Your task to perform on an android device: Do I have any events today? Image 0: 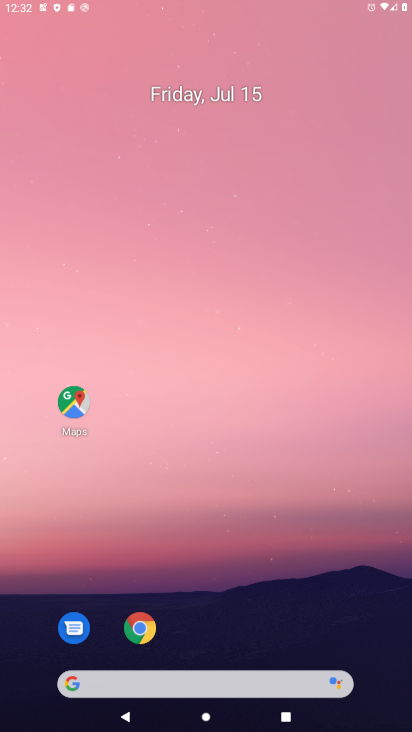
Step 0: press home button
Your task to perform on an android device: Do I have any events today? Image 1: 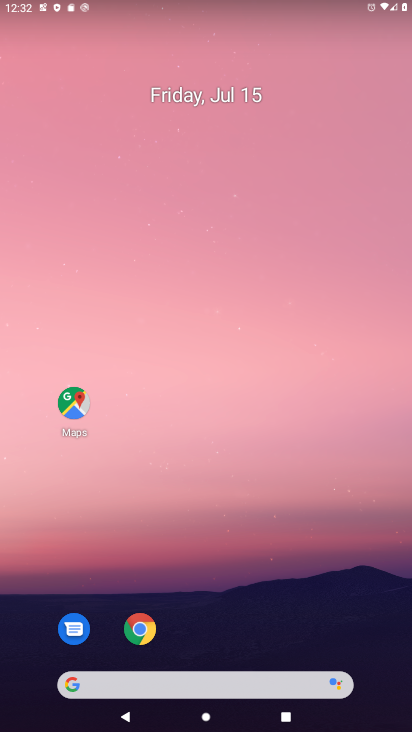
Step 1: drag from (266, 637) to (326, 1)
Your task to perform on an android device: Do I have any events today? Image 2: 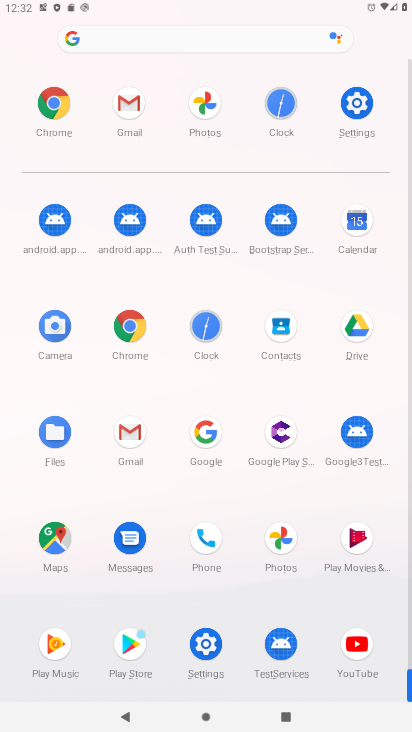
Step 2: click (363, 216)
Your task to perform on an android device: Do I have any events today? Image 3: 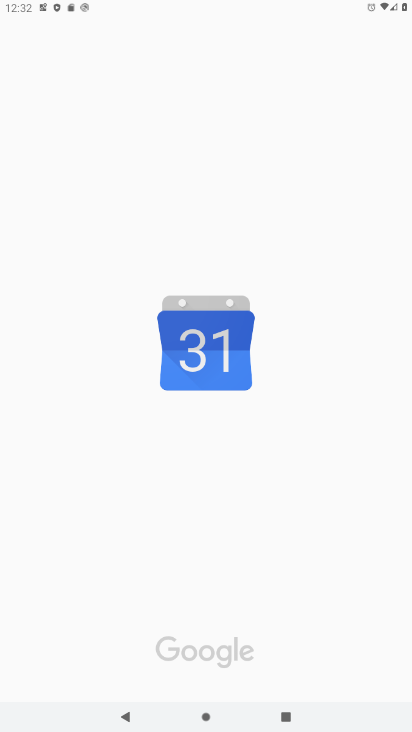
Step 3: click (363, 216)
Your task to perform on an android device: Do I have any events today? Image 4: 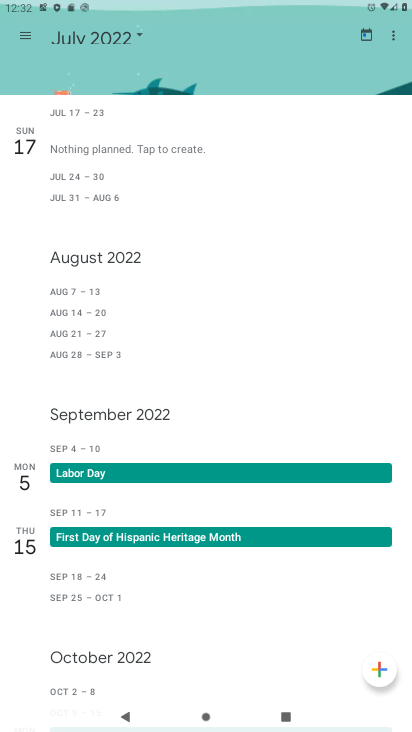
Step 4: click (25, 34)
Your task to perform on an android device: Do I have any events today? Image 5: 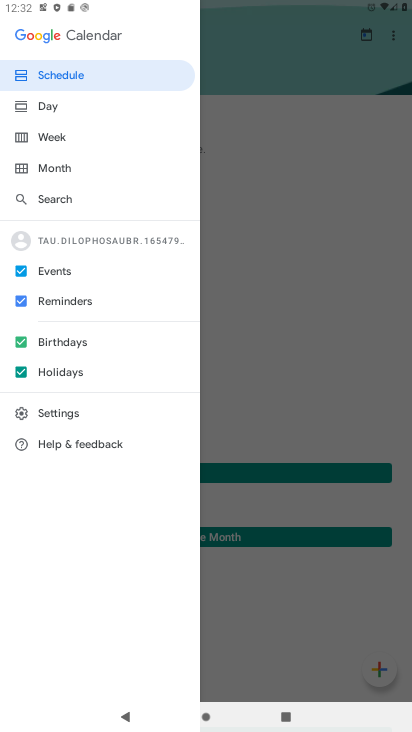
Step 5: click (63, 272)
Your task to perform on an android device: Do I have any events today? Image 6: 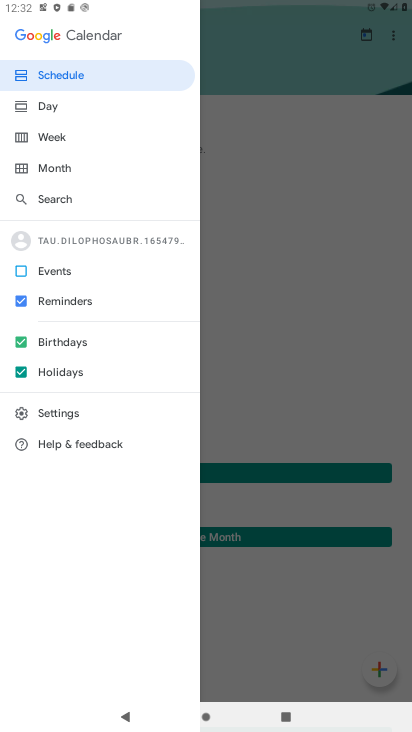
Step 6: click (63, 272)
Your task to perform on an android device: Do I have any events today? Image 7: 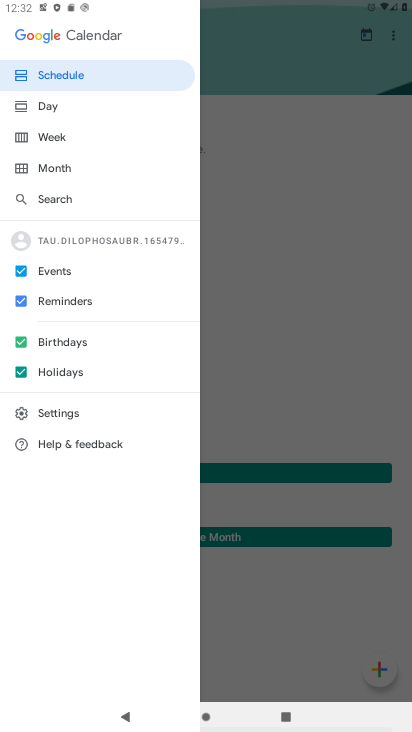
Step 7: click (377, 308)
Your task to perform on an android device: Do I have any events today? Image 8: 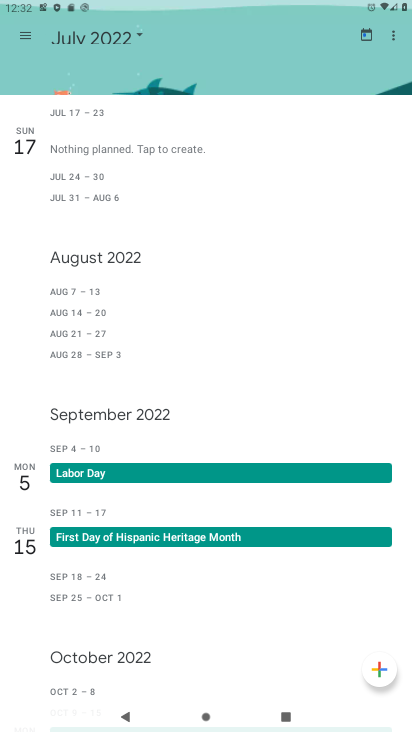
Step 8: task complete